Your task to perform on an android device: Open battery settings Image 0: 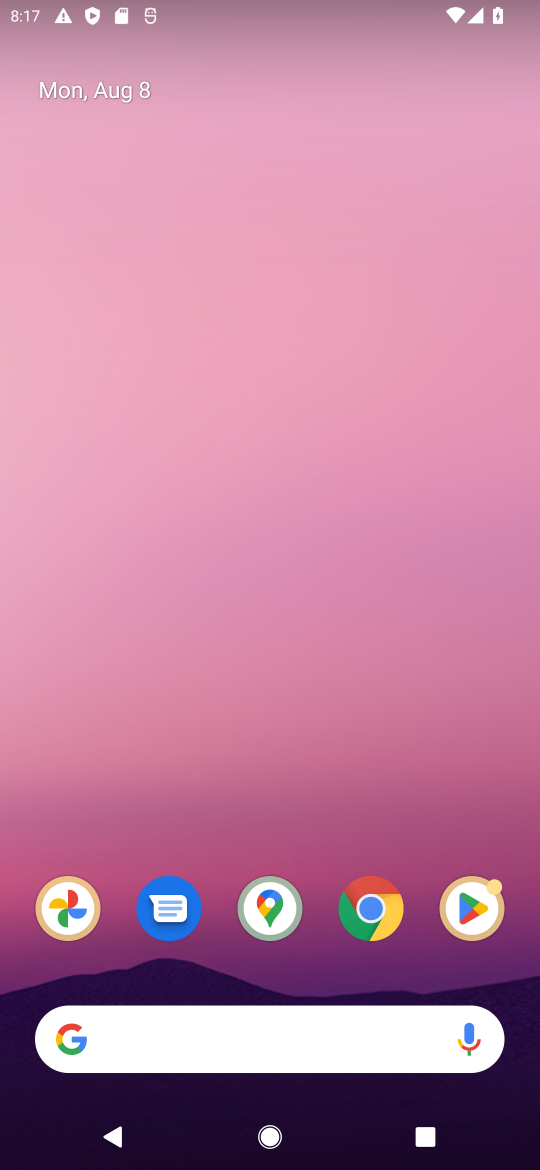
Step 0: press home button
Your task to perform on an android device: Open battery settings Image 1: 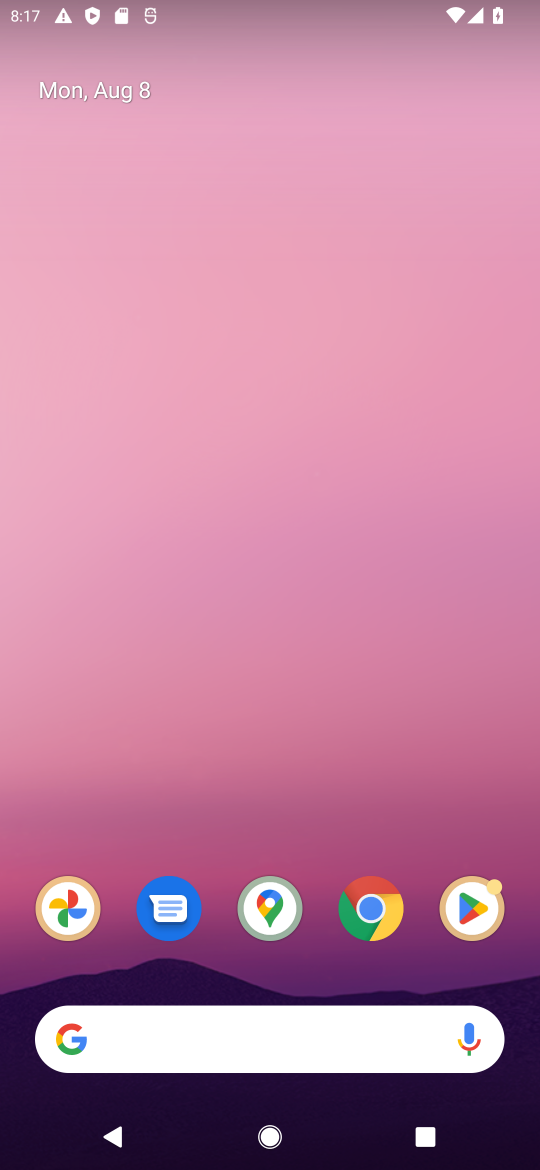
Step 1: click (297, 436)
Your task to perform on an android device: Open battery settings Image 2: 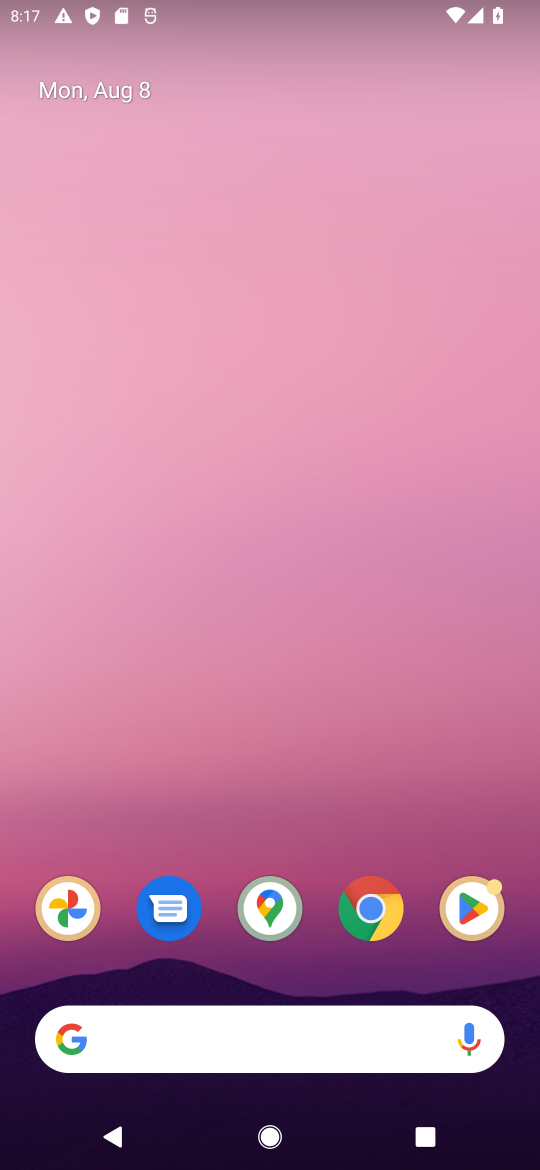
Step 2: drag from (275, 590) to (248, 55)
Your task to perform on an android device: Open battery settings Image 3: 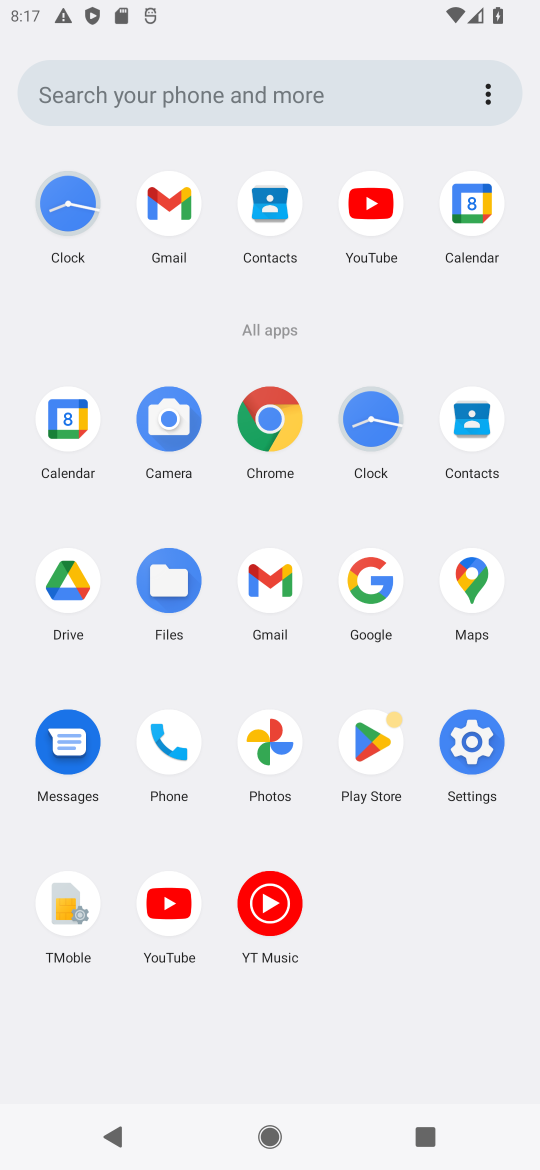
Step 3: click (440, 731)
Your task to perform on an android device: Open battery settings Image 4: 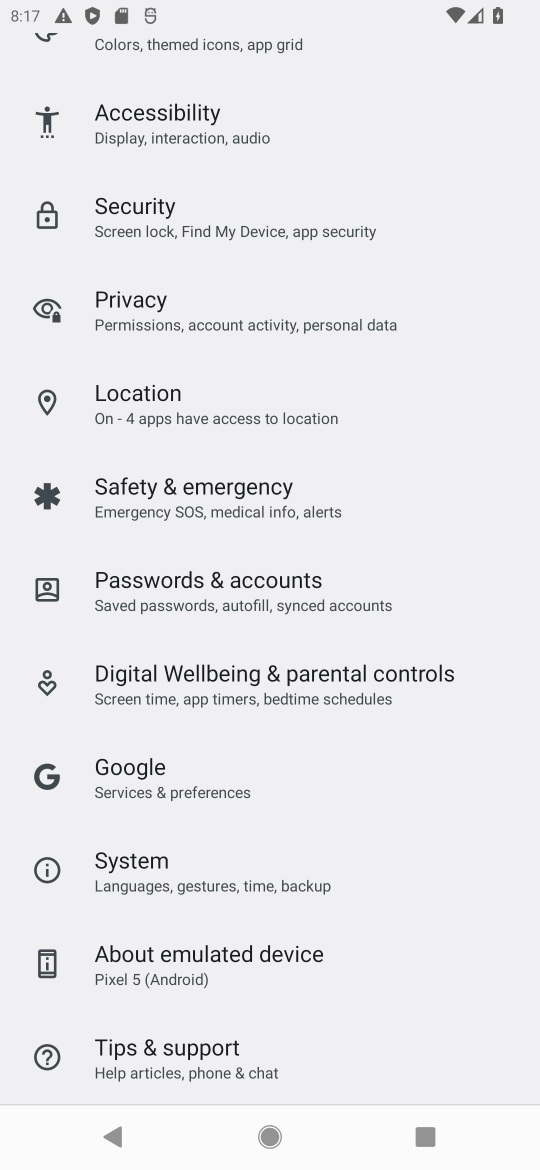
Step 4: drag from (158, 125) to (105, 959)
Your task to perform on an android device: Open battery settings Image 5: 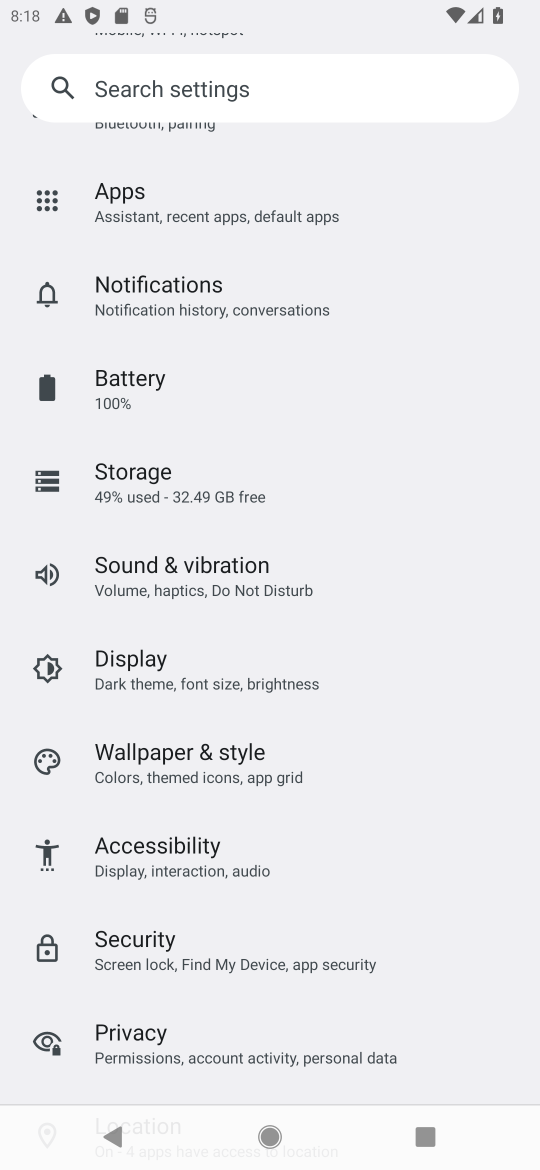
Step 5: click (94, 405)
Your task to perform on an android device: Open battery settings Image 6: 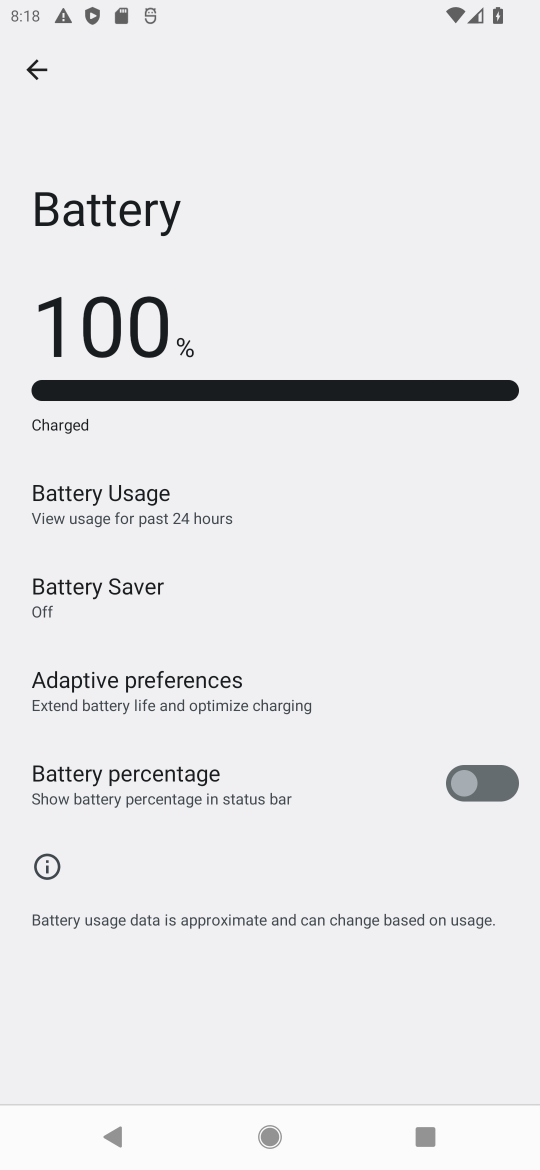
Step 6: task complete